Your task to perform on an android device: toggle notifications settings in the gmail app Image 0: 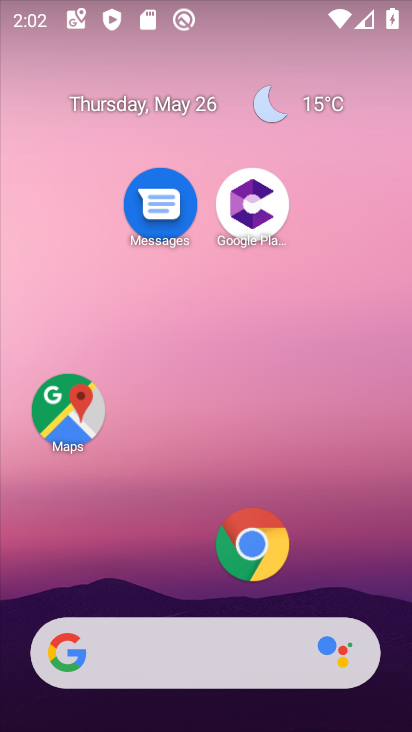
Step 0: drag from (150, 532) to (235, 15)
Your task to perform on an android device: toggle notifications settings in the gmail app Image 1: 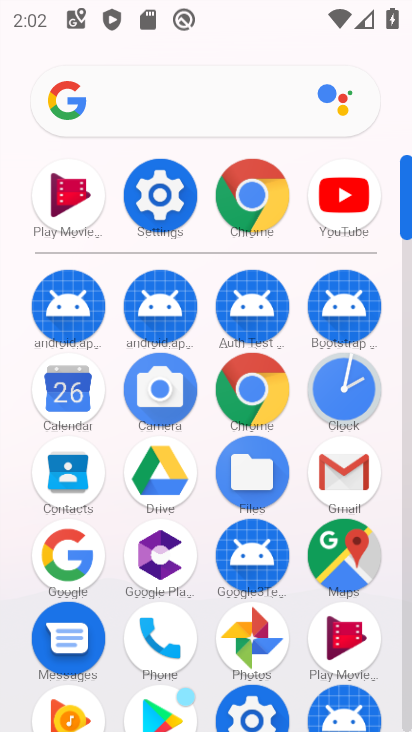
Step 1: click (327, 470)
Your task to perform on an android device: toggle notifications settings in the gmail app Image 2: 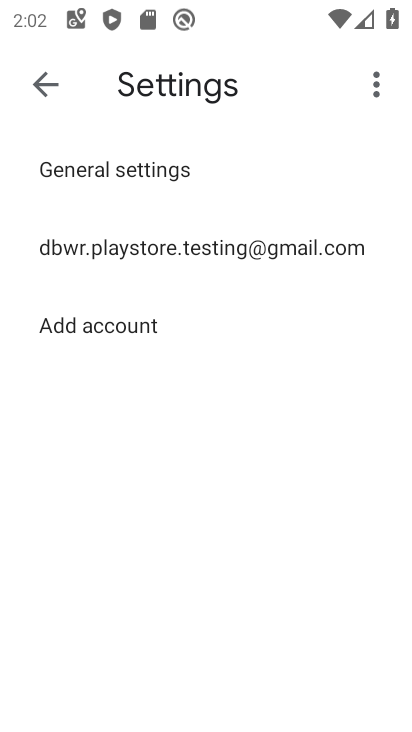
Step 2: click (202, 241)
Your task to perform on an android device: toggle notifications settings in the gmail app Image 3: 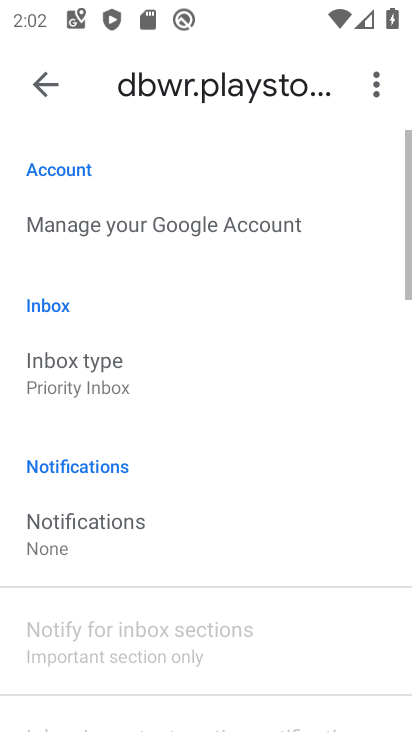
Step 3: click (114, 552)
Your task to perform on an android device: toggle notifications settings in the gmail app Image 4: 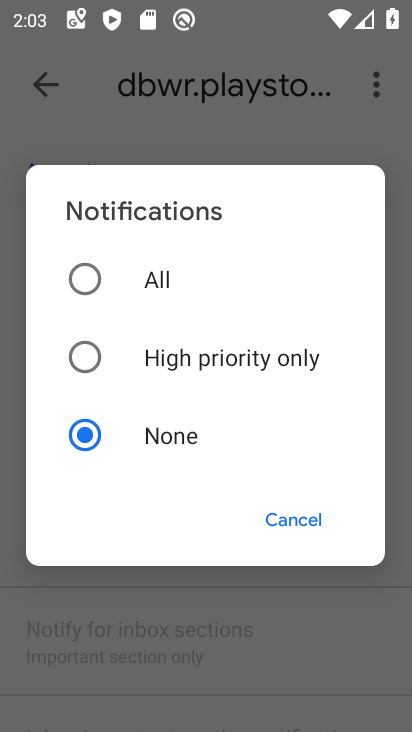
Step 4: click (86, 280)
Your task to perform on an android device: toggle notifications settings in the gmail app Image 5: 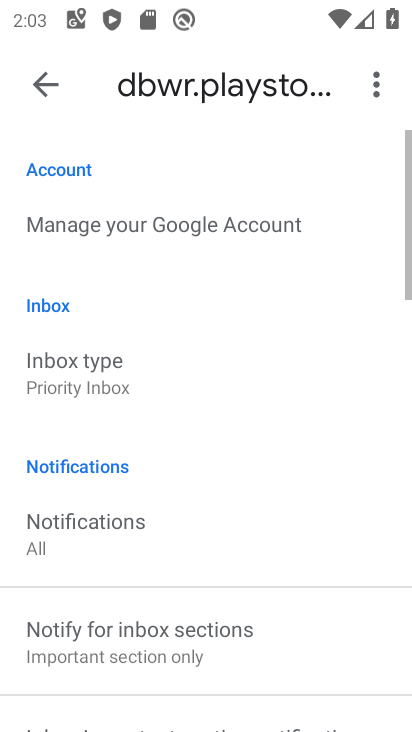
Step 5: task complete